Your task to perform on an android device: Open location settings Image 0: 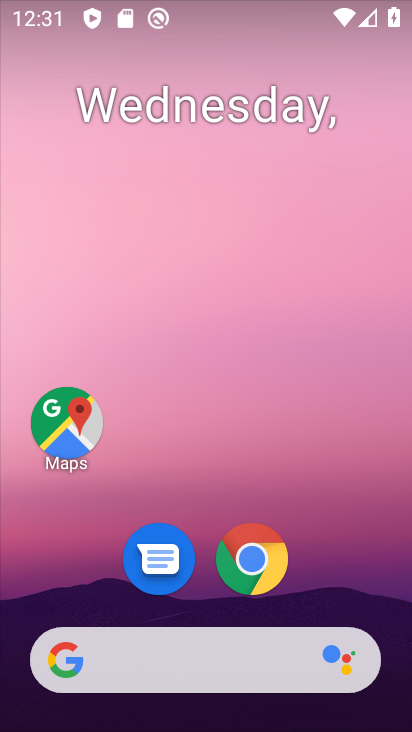
Step 0: drag from (367, 569) to (258, 155)
Your task to perform on an android device: Open location settings Image 1: 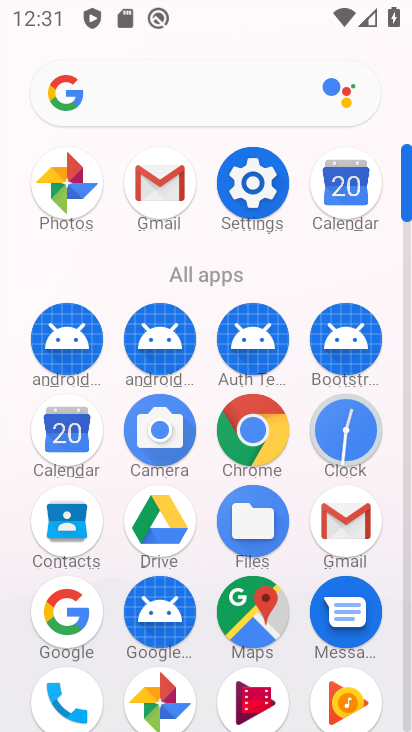
Step 1: click (259, 197)
Your task to perform on an android device: Open location settings Image 2: 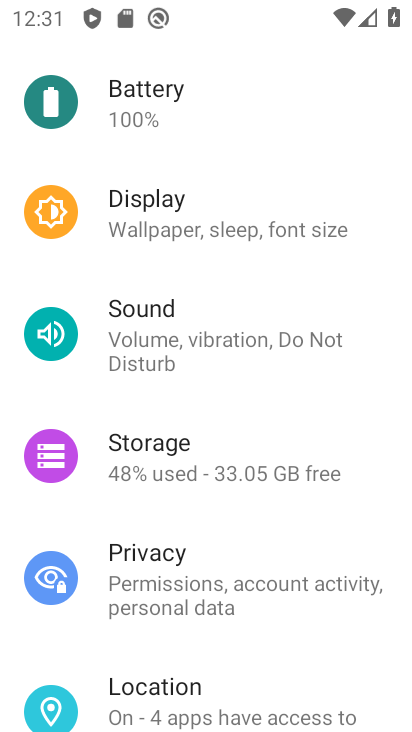
Step 2: click (170, 694)
Your task to perform on an android device: Open location settings Image 3: 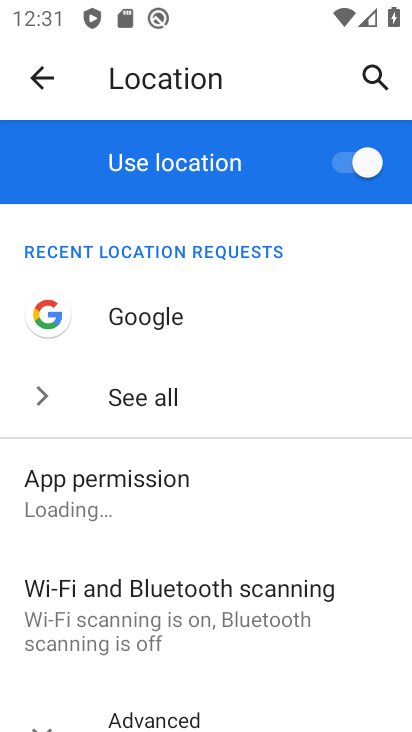
Step 3: task complete